Your task to perform on an android device: Set the phone to "Do not disturb". Image 0: 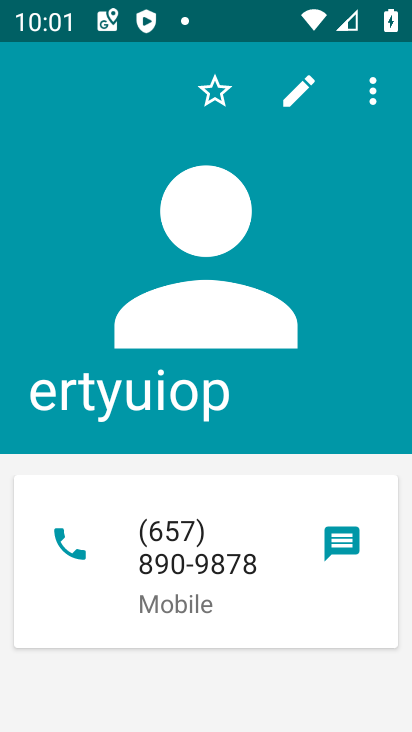
Step 0: press home button
Your task to perform on an android device: Set the phone to "Do not disturb". Image 1: 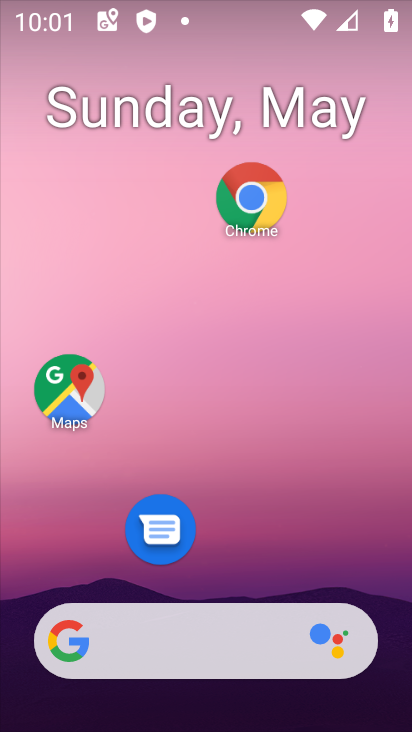
Step 1: drag from (249, 568) to (262, 56)
Your task to perform on an android device: Set the phone to "Do not disturb". Image 2: 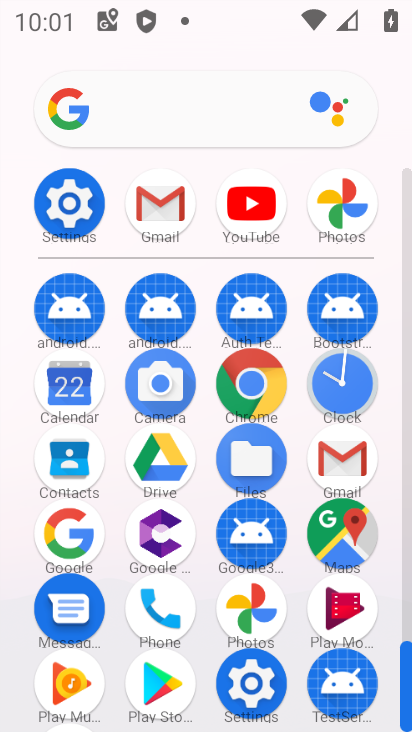
Step 2: click (81, 205)
Your task to perform on an android device: Set the phone to "Do not disturb". Image 3: 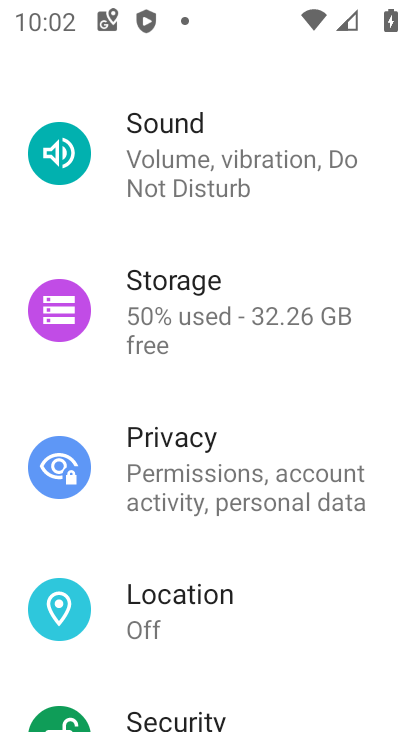
Step 3: click (233, 162)
Your task to perform on an android device: Set the phone to "Do not disturb". Image 4: 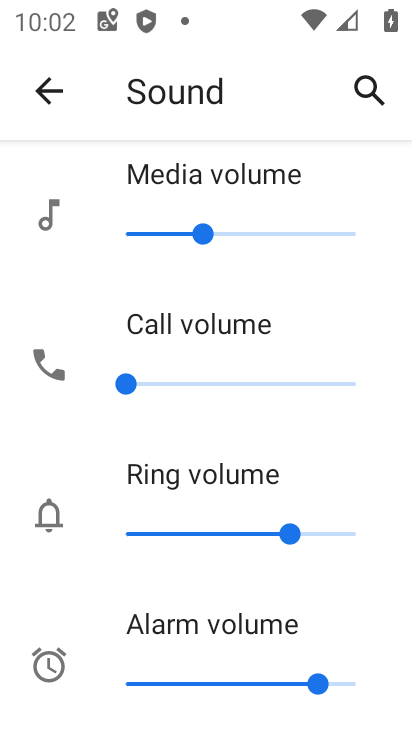
Step 4: drag from (208, 690) to (256, 284)
Your task to perform on an android device: Set the phone to "Do not disturb". Image 5: 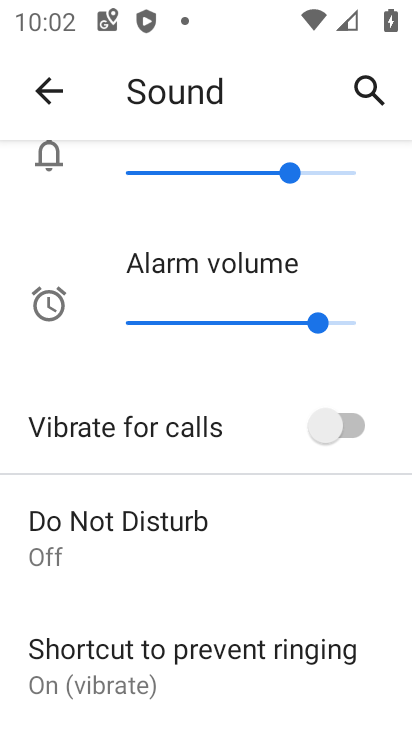
Step 5: click (159, 526)
Your task to perform on an android device: Set the phone to "Do not disturb". Image 6: 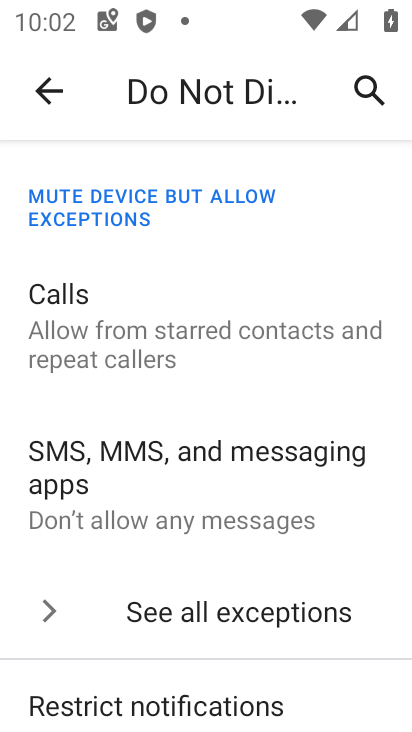
Step 6: drag from (218, 676) to (253, 384)
Your task to perform on an android device: Set the phone to "Do not disturb". Image 7: 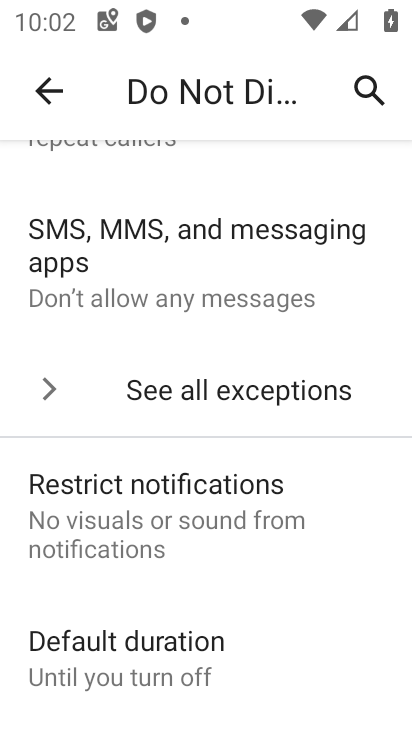
Step 7: drag from (246, 630) to (262, 337)
Your task to perform on an android device: Set the phone to "Do not disturb". Image 8: 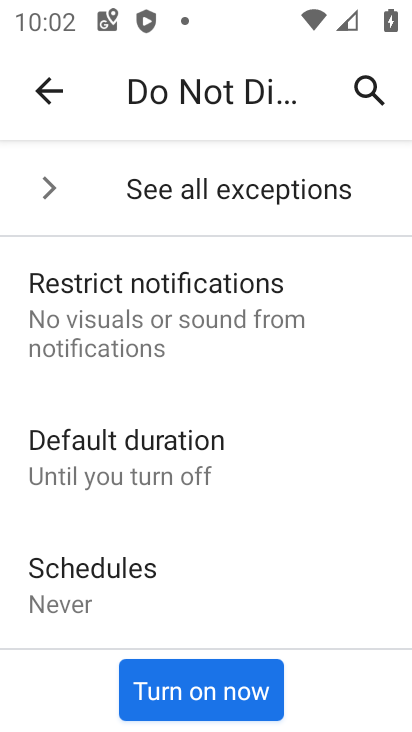
Step 8: click (205, 696)
Your task to perform on an android device: Set the phone to "Do not disturb". Image 9: 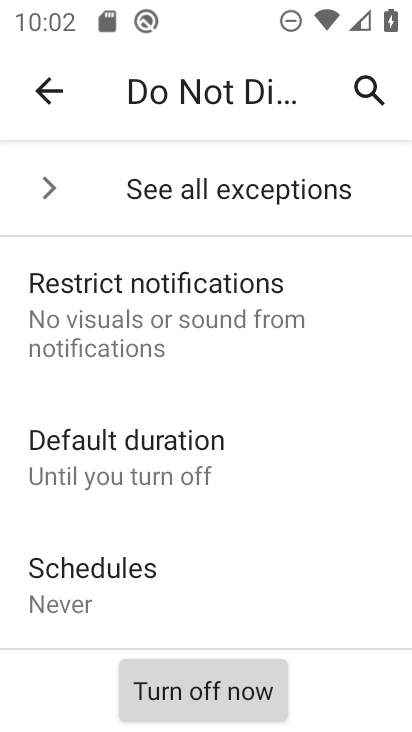
Step 9: task complete